Your task to perform on an android device: Open Maps and search for coffee Image 0: 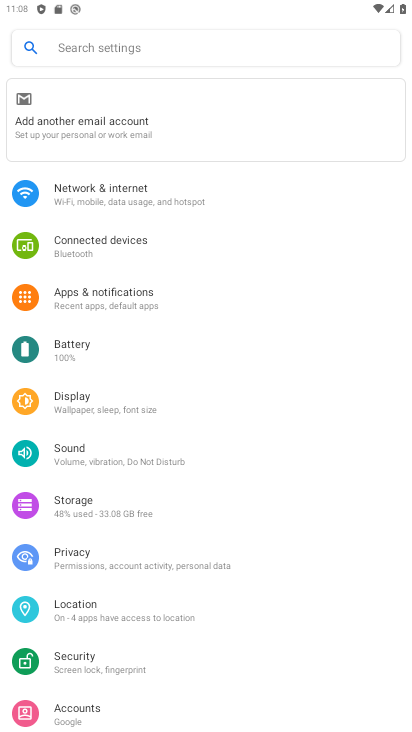
Step 0: press home button
Your task to perform on an android device: Open Maps and search for coffee Image 1: 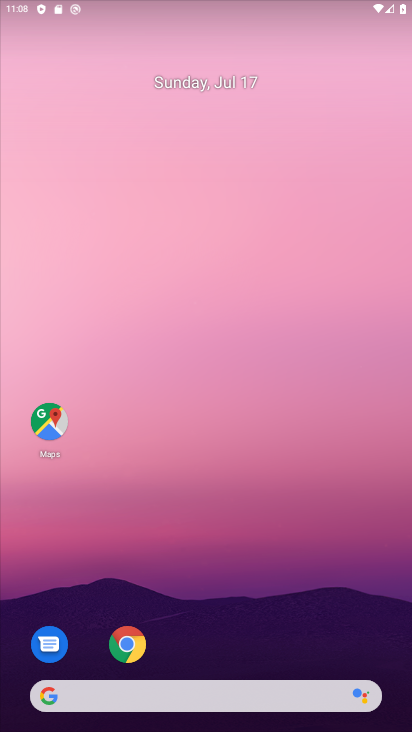
Step 1: drag from (246, 661) to (276, 17)
Your task to perform on an android device: Open Maps and search for coffee Image 2: 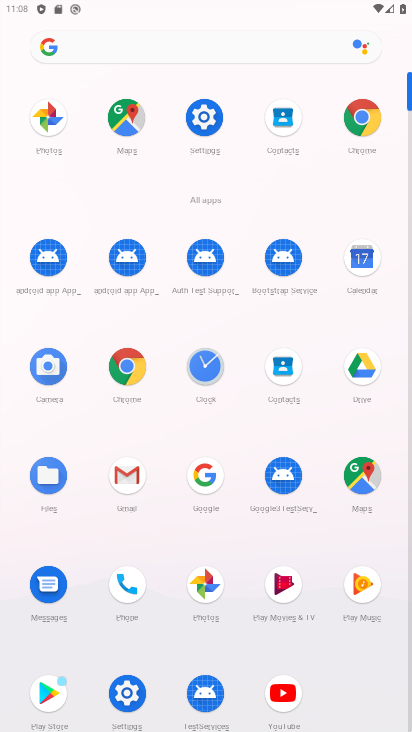
Step 2: click (109, 119)
Your task to perform on an android device: Open Maps and search for coffee Image 3: 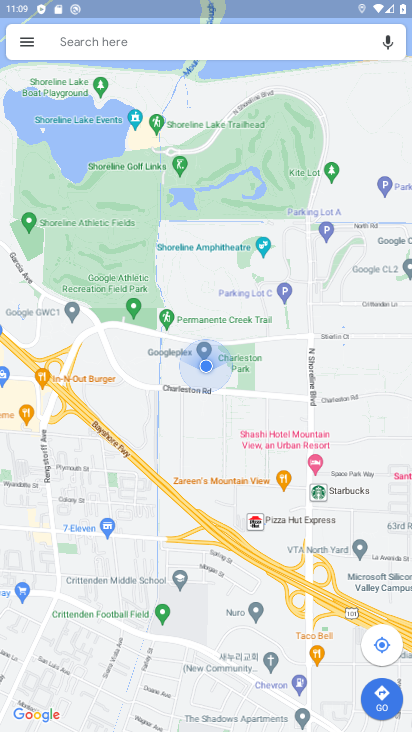
Step 3: click (327, 49)
Your task to perform on an android device: Open Maps and search for coffee Image 4: 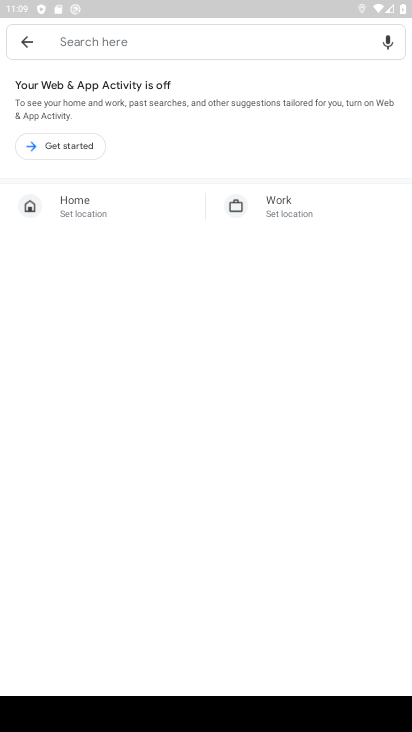
Step 4: type "coffee"
Your task to perform on an android device: Open Maps and search for coffee Image 5: 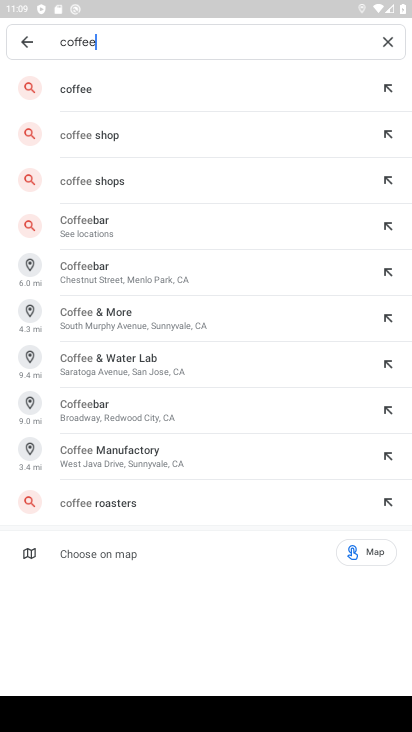
Step 5: click (67, 87)
Your task to perform on an android device: Open Maps and search for coffee Image 6: 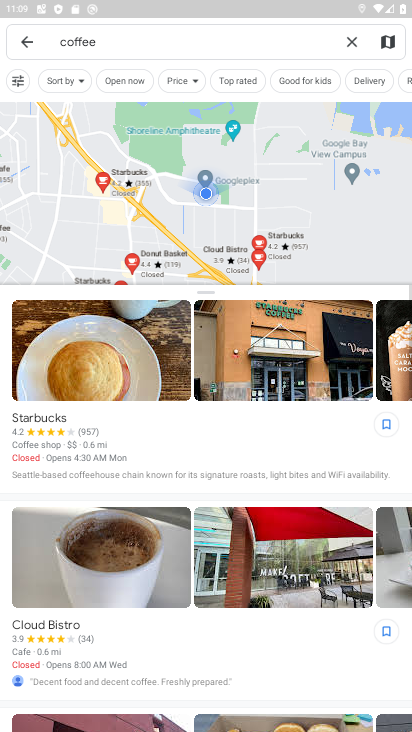
Step 6: task complete